Your task to perform on an android device: turn off notifications in google photos Image 0: 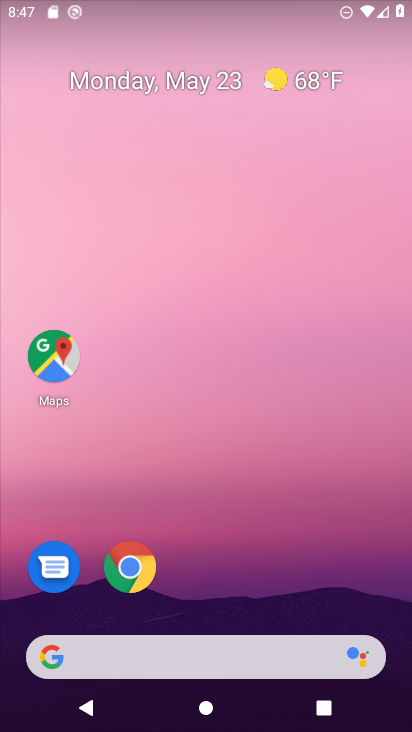
Step 0: drag from (356, 9) to (303, 153)
Your task to perform on an android device: turn off notifications in google photos Image 1: 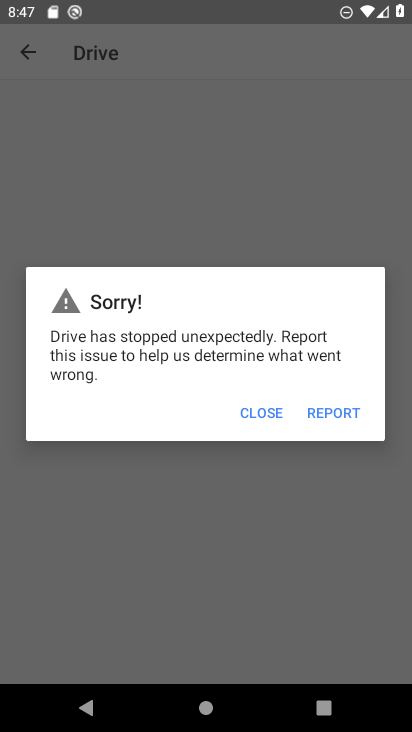
Step 1: press home button
Your task to perform on an android device: turn off notifications in google photos Image 2: 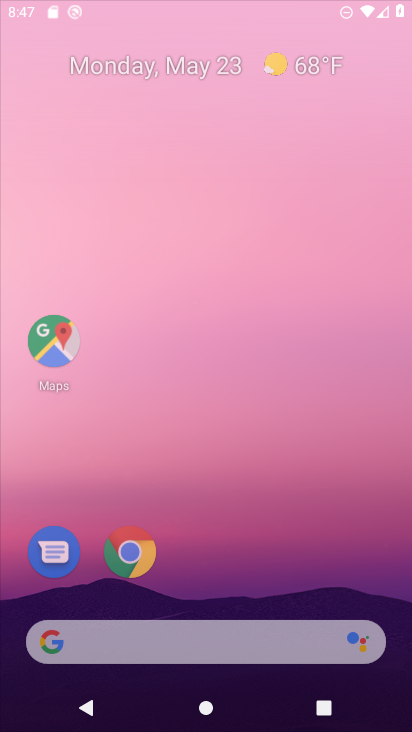
Step 2: drag from (197, 627) to (300, 116)
Your task to perform on an android device: turn off notifications in google photos Image 3: 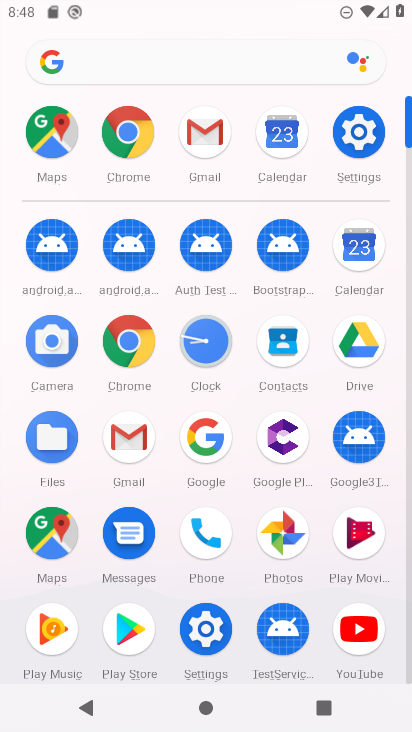
Step 3: click (281, 521)
Your task to perform on an android device: turn off notifications in google photos Image 4: 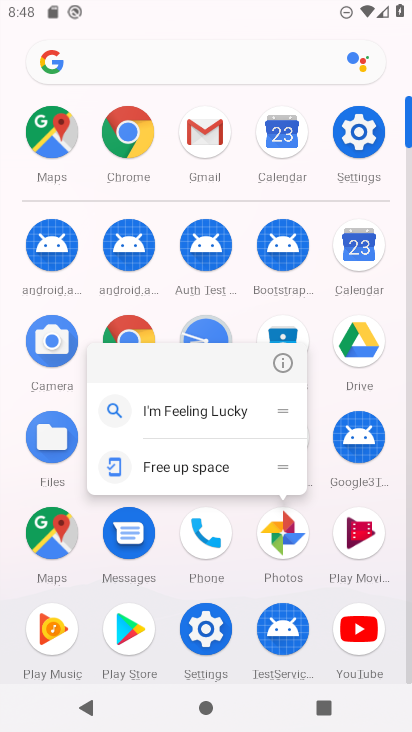
Step 4: click (286, 369)
Your task to perform on an android device: turn off notifications in google photos Image 5: 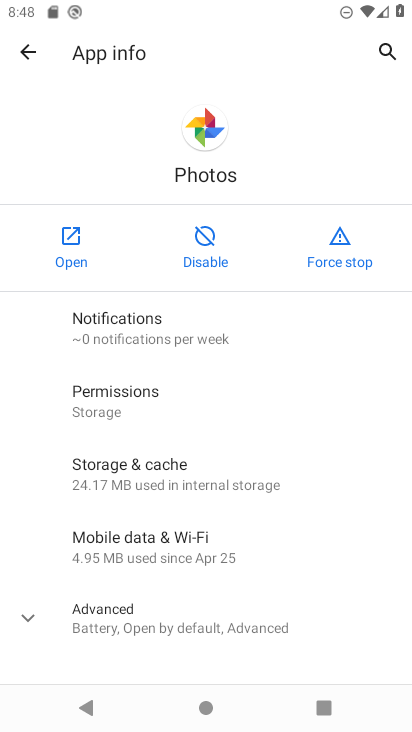
Step 5: click (81, 228)
Your task to perform on an android device: turn off notifications in google photos Image 6: 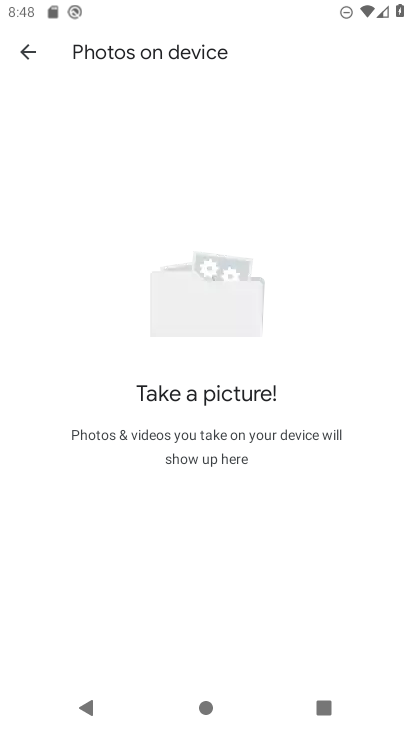
Step 6: drag from (198, 488) to (282, 84)
Your task to perform on an android device: turn off notifications in google photos Image 7: 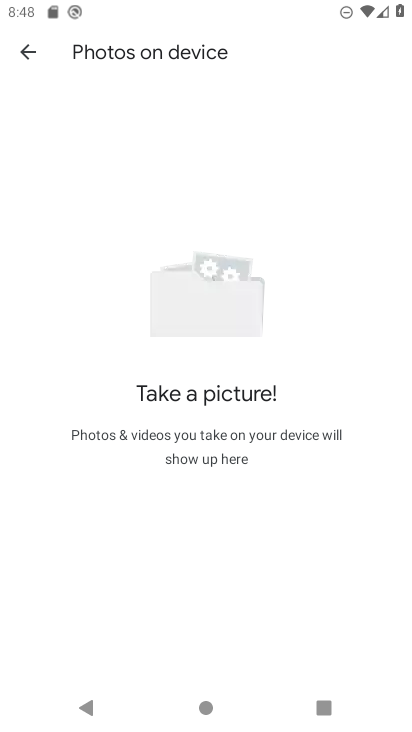
Step 7: drag from (268, 213) to (279, 626)
Your task to perform on an android device: turn off notifications in google photos Image 8: 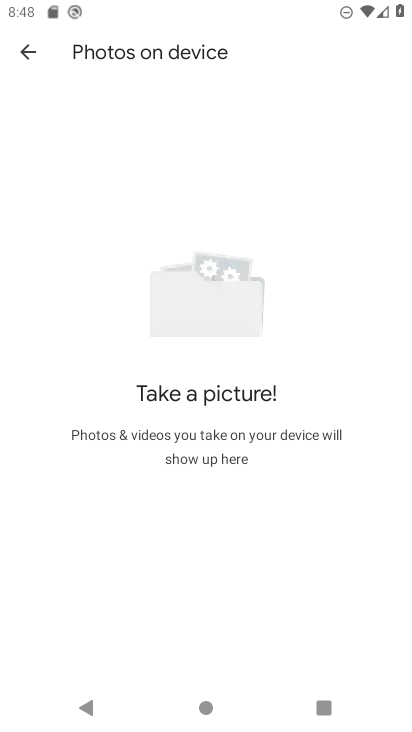
Step 8: drag from (206, 278) to (302, 669)
Your task to perform on an android device: turn off notifications in google photos Image 9: 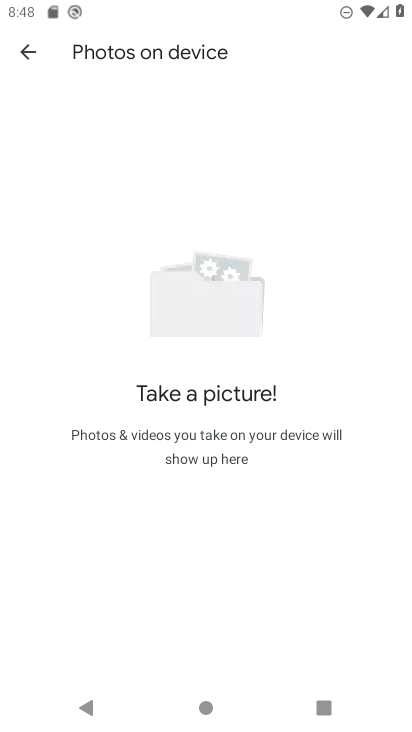
Step 9: click (23, 49)
Your task to perform on an android device: turn off notifications in google photos Image 10: 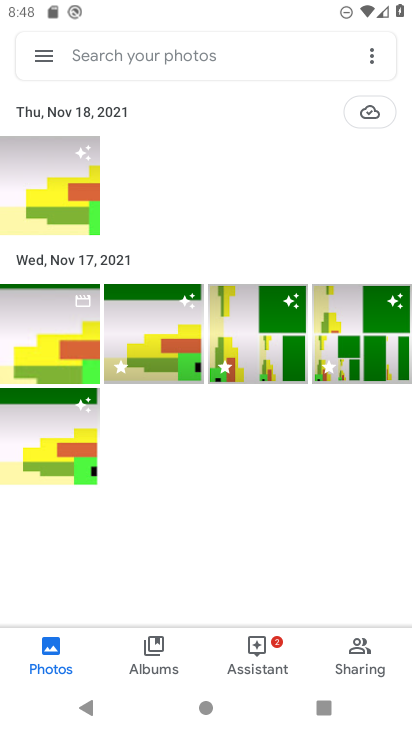
Step 10: click (147, 657)
Your task to perform on an android device: turn off notifications in google photos Image 11: 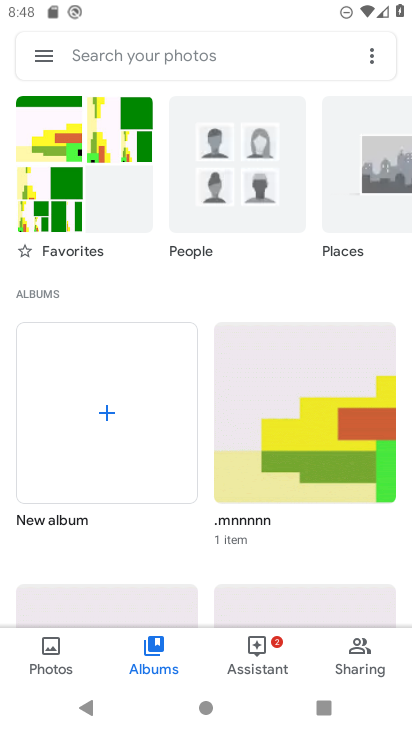
Step 11: click (52, 661)
Your task to perform on an android device: turn off notifications in google photos Image 12: 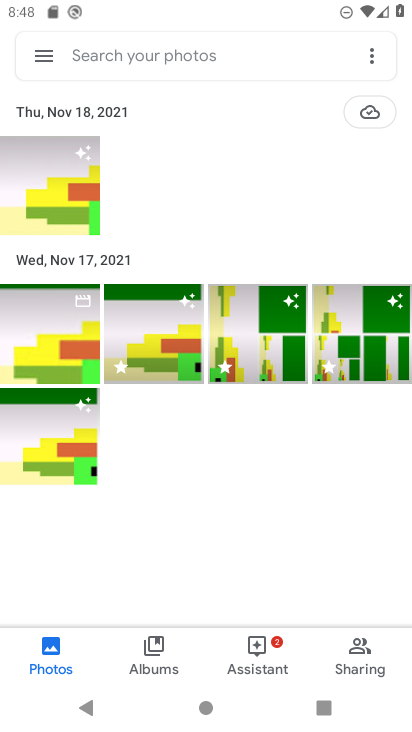
Step 12: click (76, 328)
Your task to perform on an android device: turn off notifications in google photos Image 13: 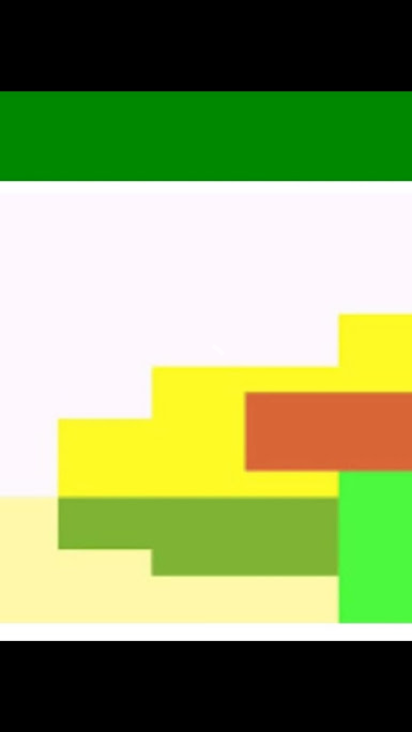
Step 13: task complete